Your task to perform on an android device: empty trash in google photos Image 0: 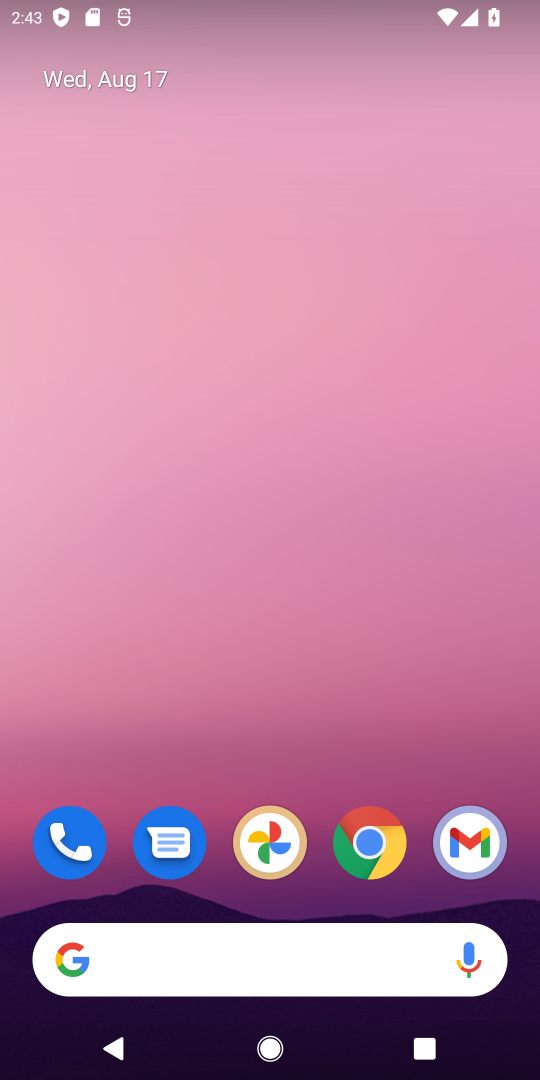
Step 0: drag from (427, 867) to (218, 37)
Your task to perform on an android device: empty trash in google photos Image 1: 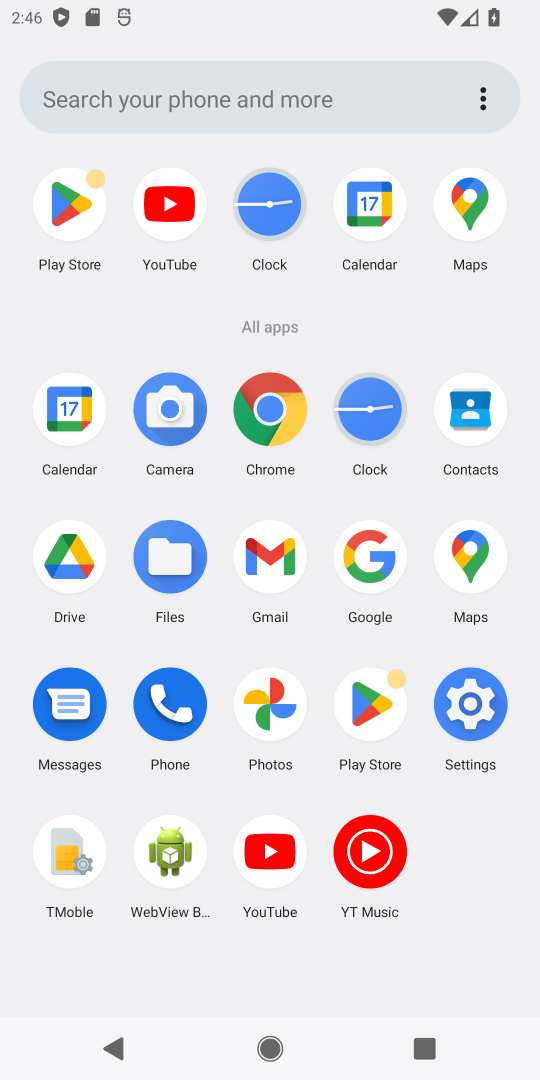
Step 1: click (280, 710)
Your task to perform on an android device: empty trash in google photos Image 2: 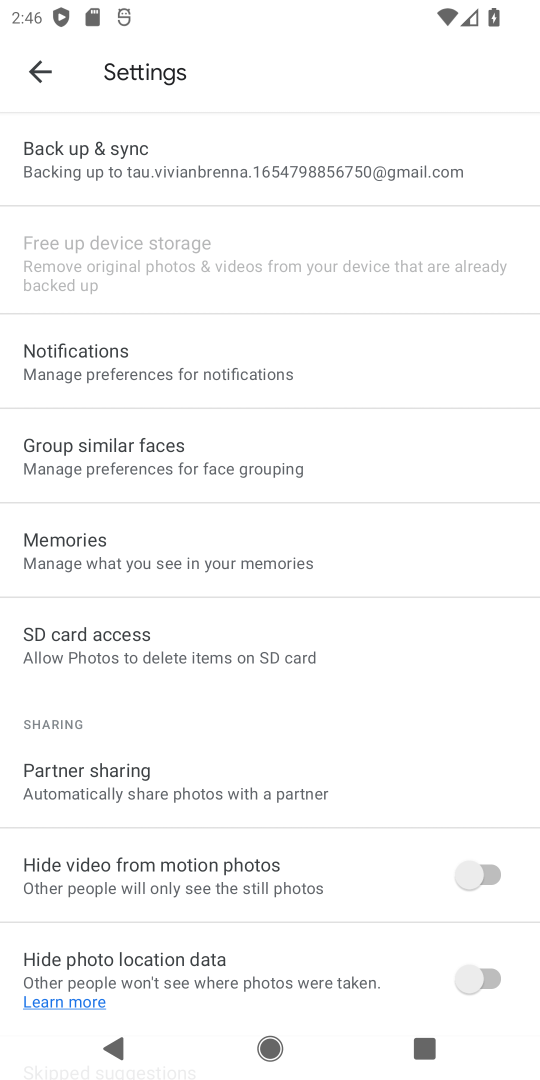
Step 2: task complete